Your task to perform on an android device: Open privacy settings Image 0: 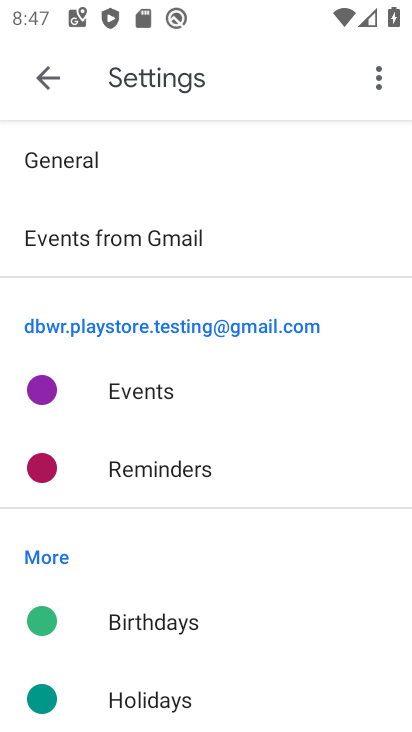
Step 0: press home button
Your task to perform on an android device: Open privacy settings Image 1: 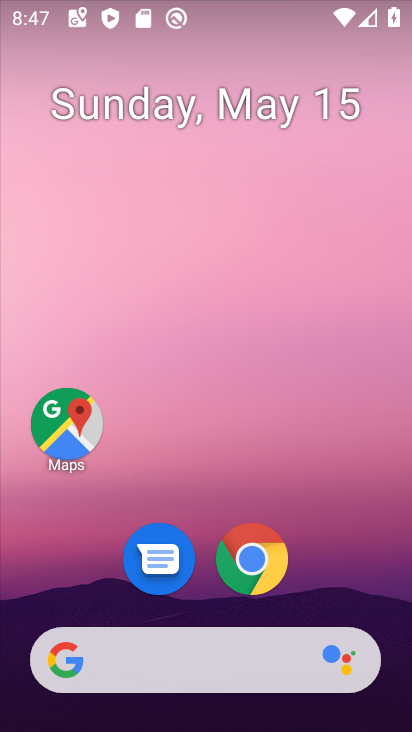
Step 1: drag from (335, 579) to (356, 162)
Your task to perform on an android device: Open privacy settings Image 2: 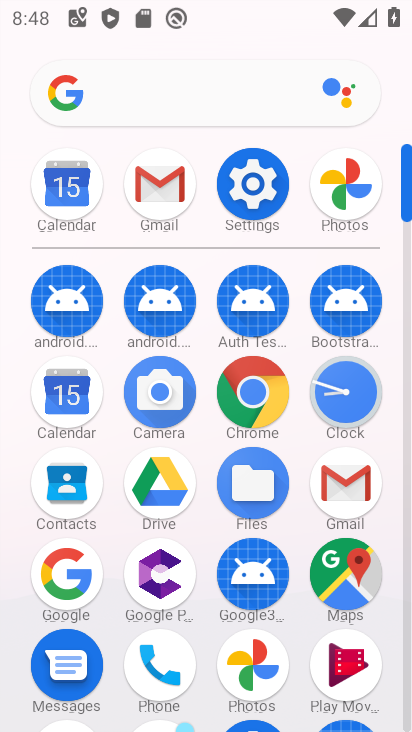
Step 2: click (246, 174)
Your task to perform on an android device: Open privacy settings Image 3: 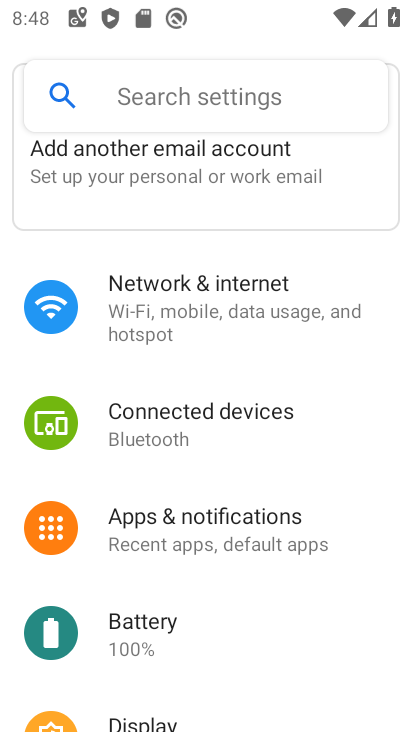
Step 3: drag from (179, 623) to (274, 200)
Your task to perform on an android device: Open privacy settings Image 4: 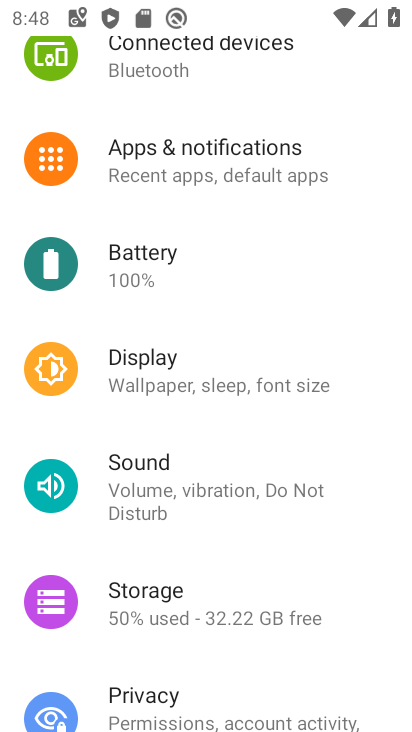
Step 4: click (160, 688)
Your task to perform on an android device: Open privacy settings Image 5: 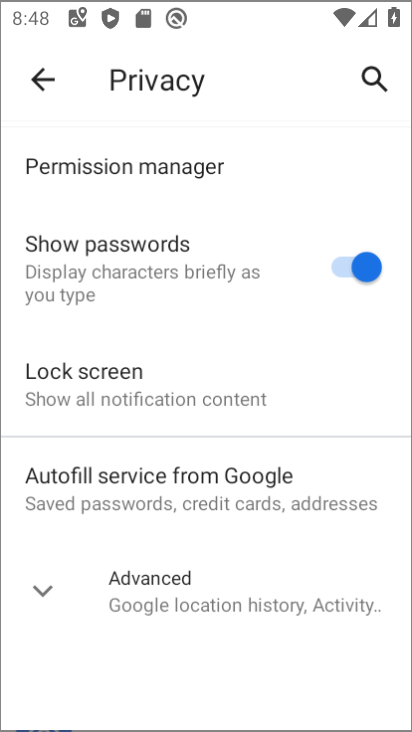
Step 5: task complete